Your task to perform on an android device: When is my next meeting? Image 0: 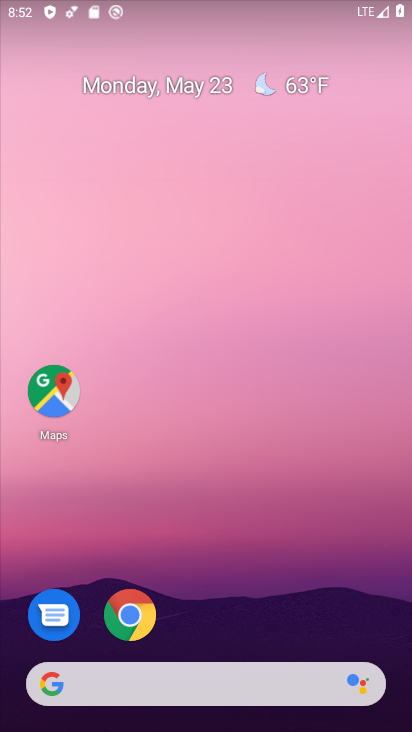
Step 0: drag from (244, 614) to (323, 137)
Your task to perform on an android device: When is my next meeting? Image 1: 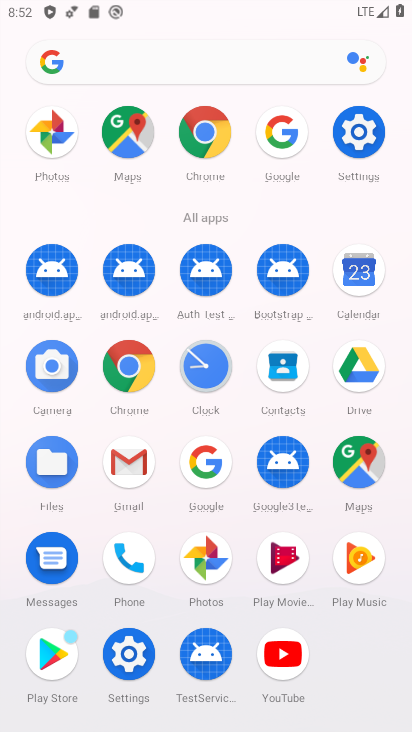
Step 1: click (352, 274)
Your task to perform on an android device: When is my next meeting? Image 2: 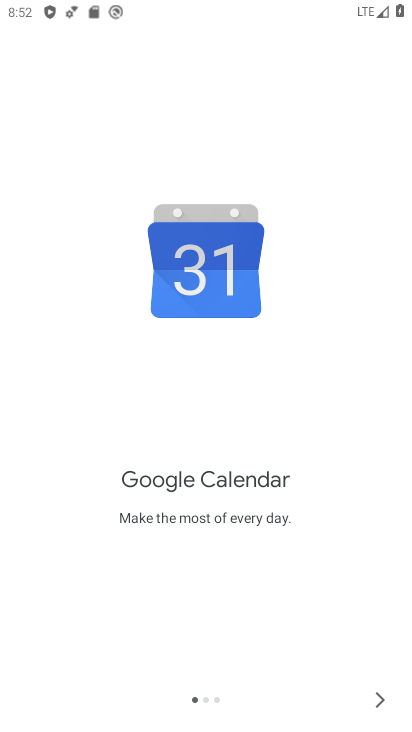
Step 2: click (391, 706)
Your task to perform on an android device: When is my next meeting? Image 3: 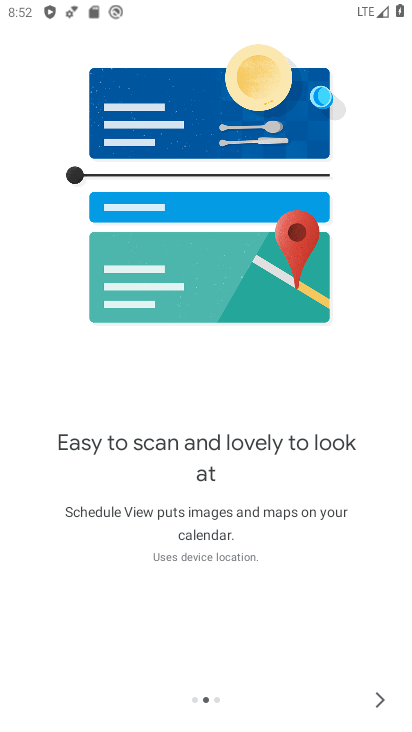
Step 3: click (390, 706)
Your task to perform on an android device: When is my next meeting? Image 4: 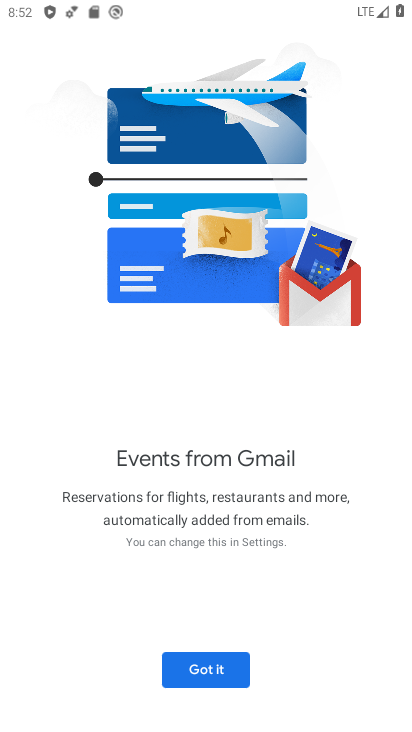
Step 4: click (208, 669)
Your task to perform on an android device: When is my next meeting? Image 5: 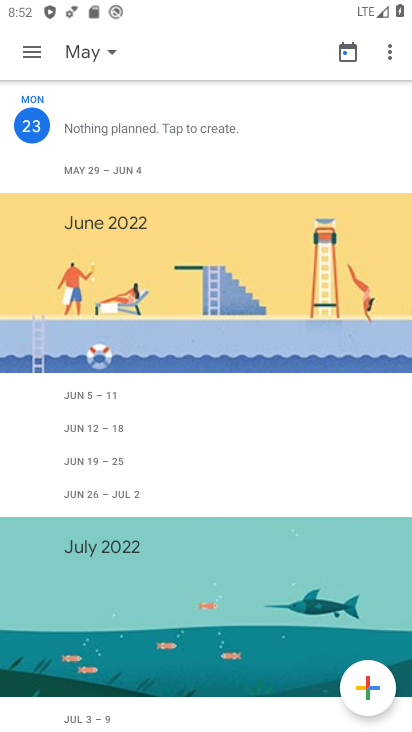
Step 5: click (107, 61)
Your task to perform on an android device: When is my next meeting? Image 6: 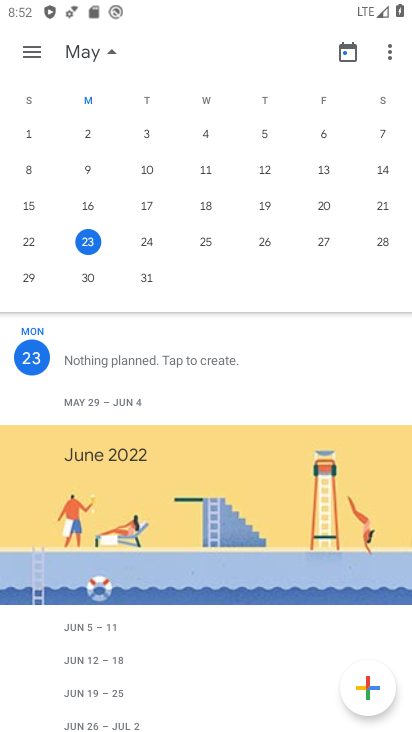
Step 6: click (201, 242)
Your task to perform on an android device: When is my next meeting? Image 7: 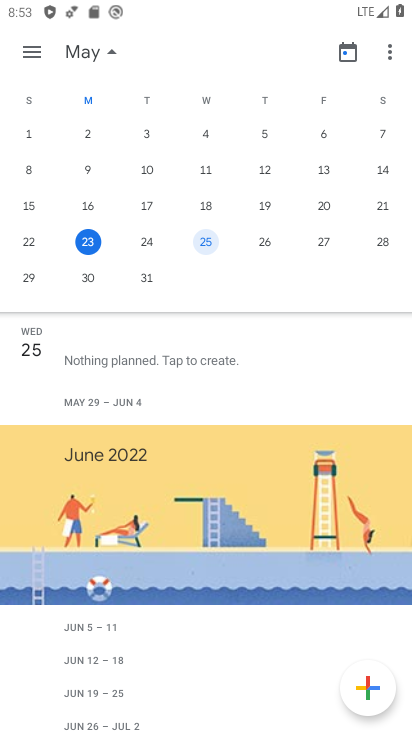
Step 7: task complete